Your task to perform on an android device: Go to CNN.com Image 0: 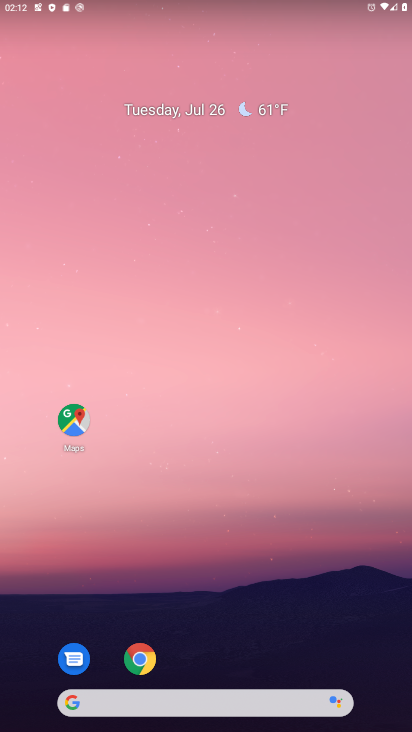
Step 0: drag from (228, 633) to (208, 82)
Your task to perform on an android device: Go to CNN.com Image 1: 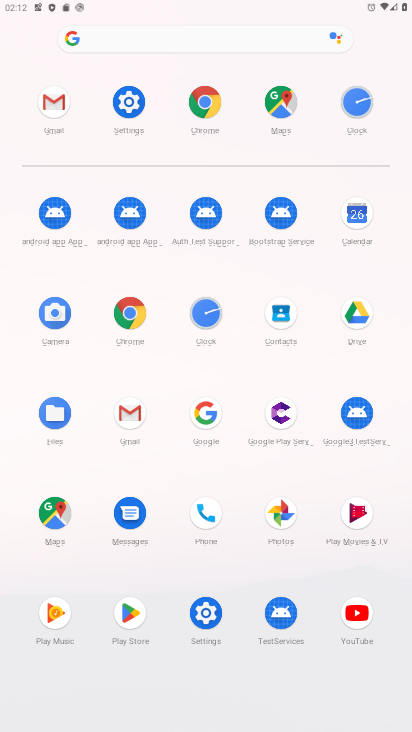
Step 1: click (205, 101)
Your task to perform on an android device: Go to CNN.com Image 2: 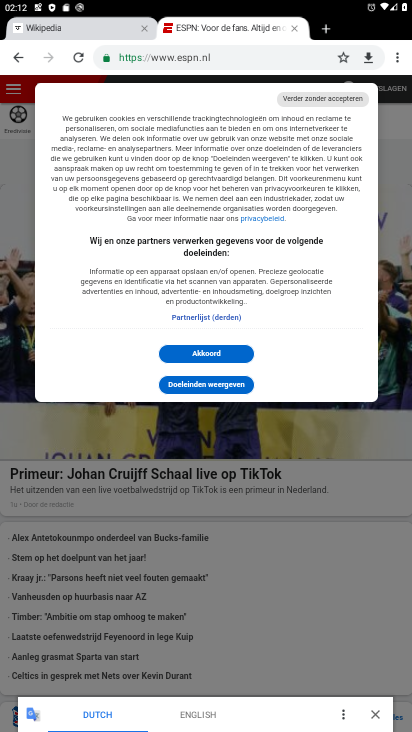
Step 2: click (188, 60)
Your task to perform on an android device: Go to CNN.com Image 3: 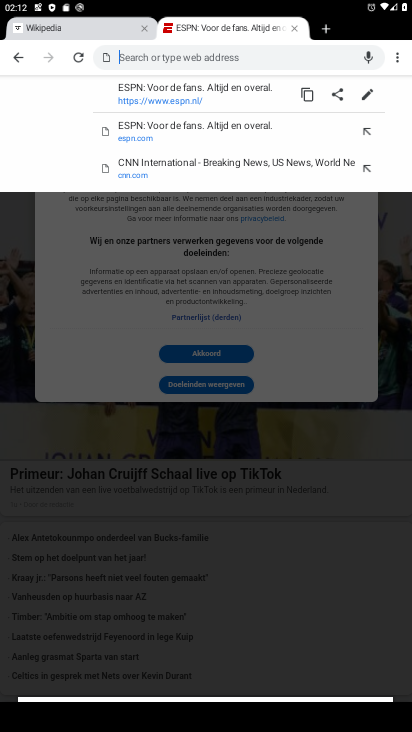
Step 3: type "cnn.com"
Your task to perform on an android device: Go to CNN.com Image 4: 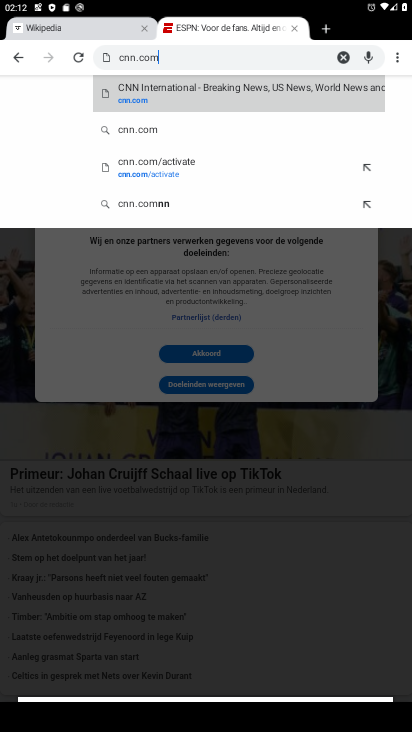
Step 4: click (131, 101)
Your task to perform on an android device: Go to CNN.com Image 5: 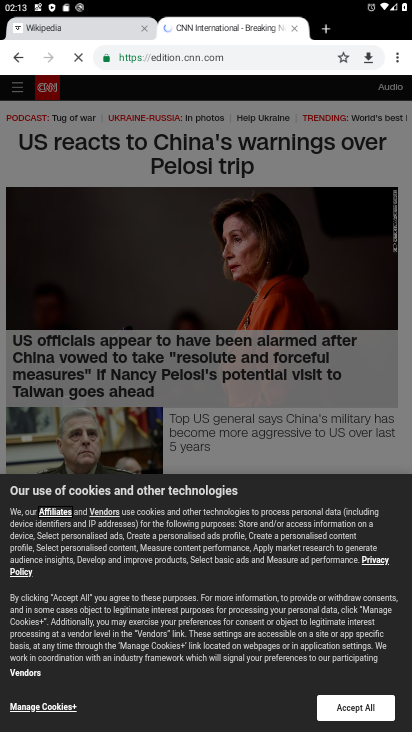
Step 5: task complete